Your task to perform on an android device: check android version Image 0: 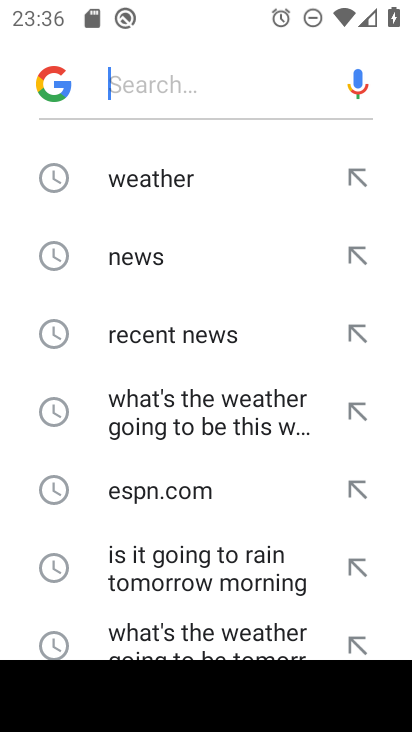
Step 0: press home button
Your task to perform on an android device: check android version Image 1: 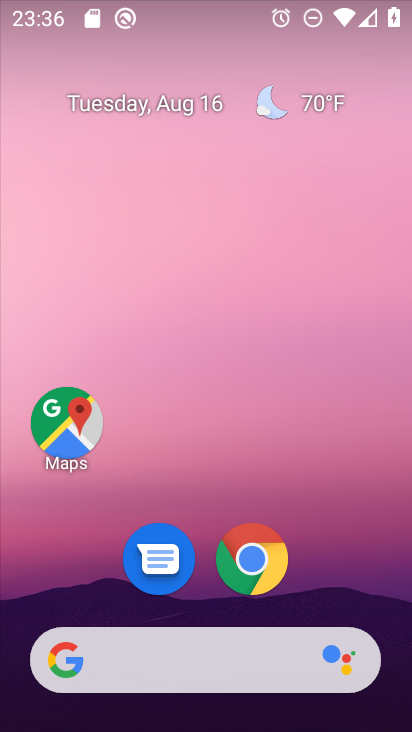
Step 1: drag from (230, 672) to (268, 88)
Your task to perform on an android device: check android version Image 2: 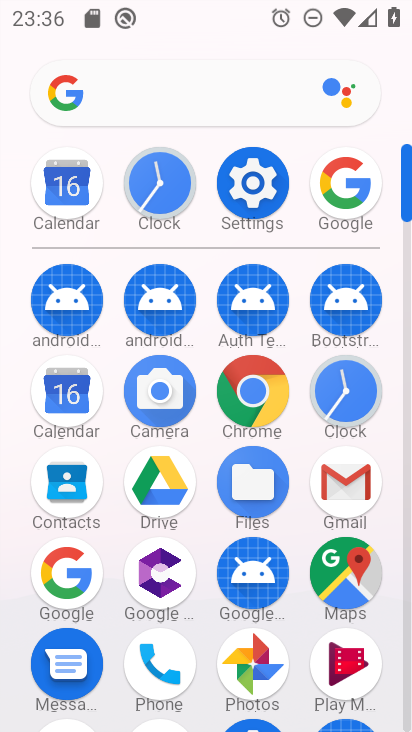
Step 2: click (254, 184)
Your task to perform on an android device: check android version Image 3: 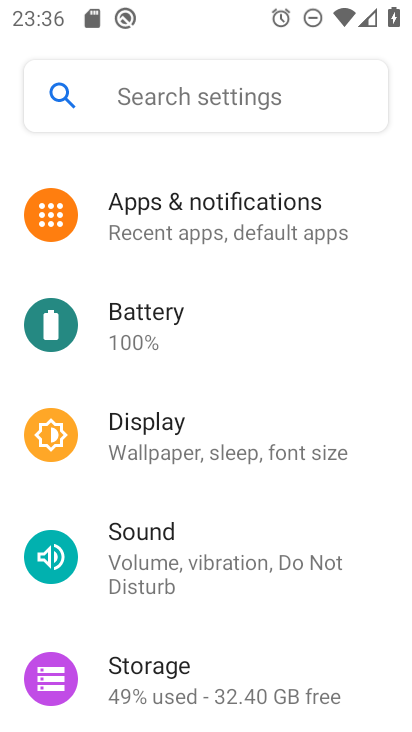
Step 3: drag from (227, 655) to (246, 417)
Your task to perform on an android device: check android version Image 4: 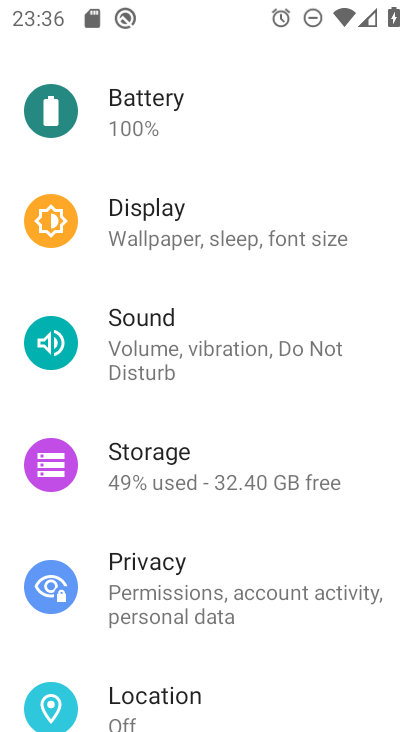
Step 4: drag from (211, 537) to (259, 387)
Your task to perform on an android device: check android version Image 5: 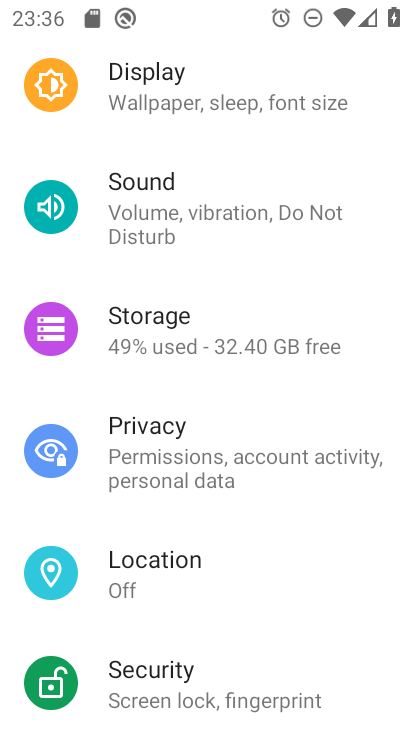
Step 5: drag from (227, 536) to (282, 337)
Your task to perform on an android device: check android version Image 6: 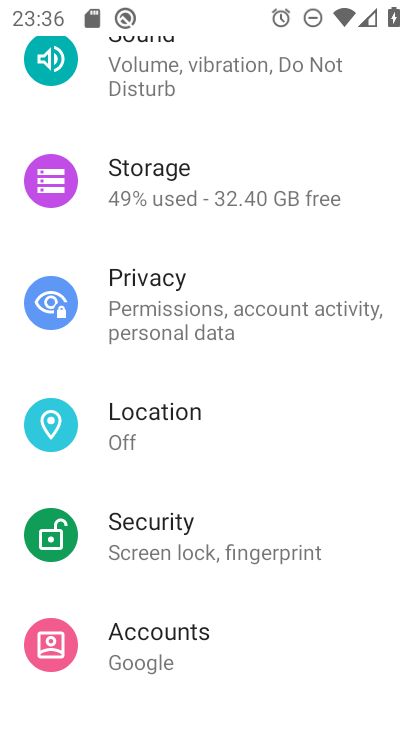
Step 6: drag from (216, 590) to (301, 463)
Your task to perform on an android device: check android version Image 7: 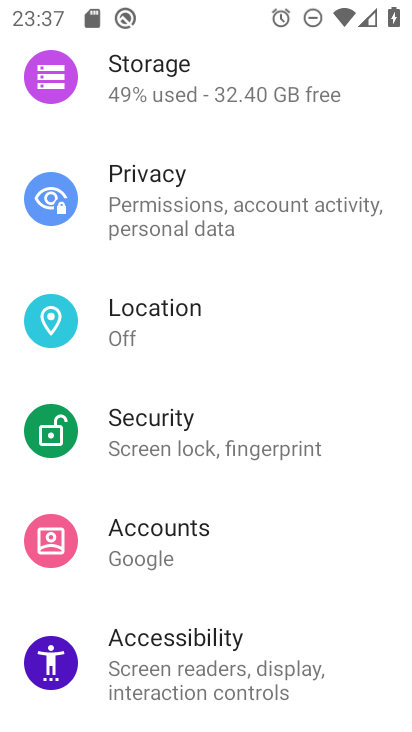
Step 7: drag from (260, 574) to (363, 439)
Your task to perform on an android device: check android version Image 8: 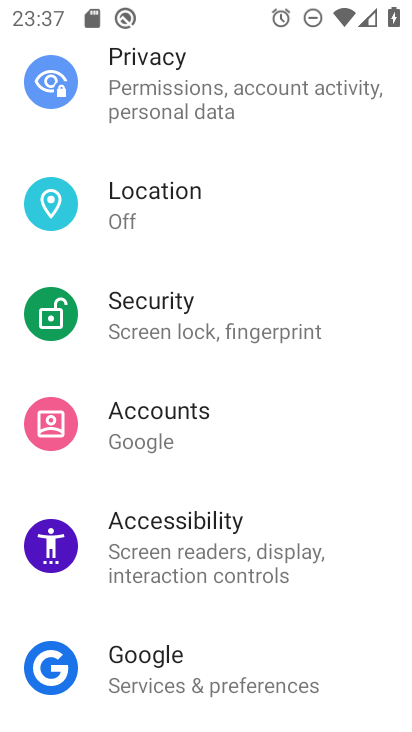
Step 8: drag from (250, 603) to (309, 451)
Your task to perform on an android device: check android version Image 9: 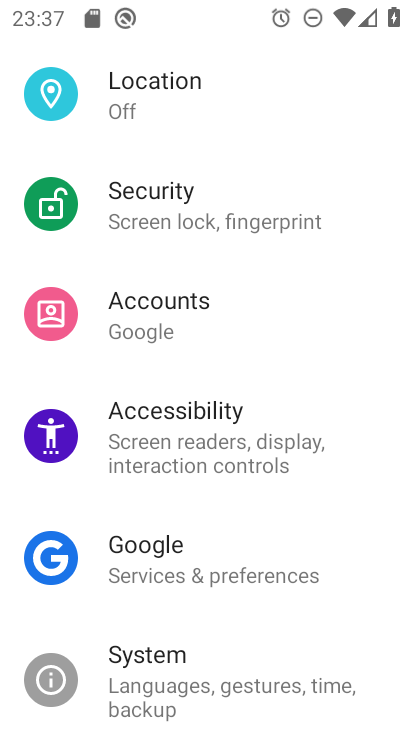
Step 9: drag from (194, 624) to (279, 465)
Your task to perform on an android device: check android version Image 10: 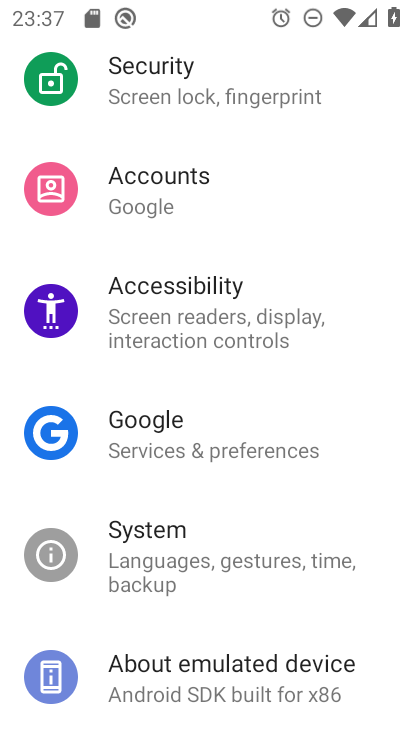
Step 10: click (230, 677)
Your task to perform on an android device: check android version Image 11: 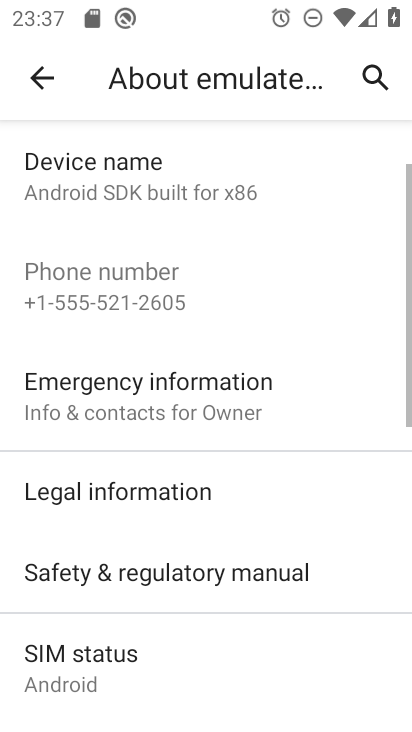
Step 11: drag from (143, 556) to (204, 427)
Your task to perform on an android device: check android version Image 12: 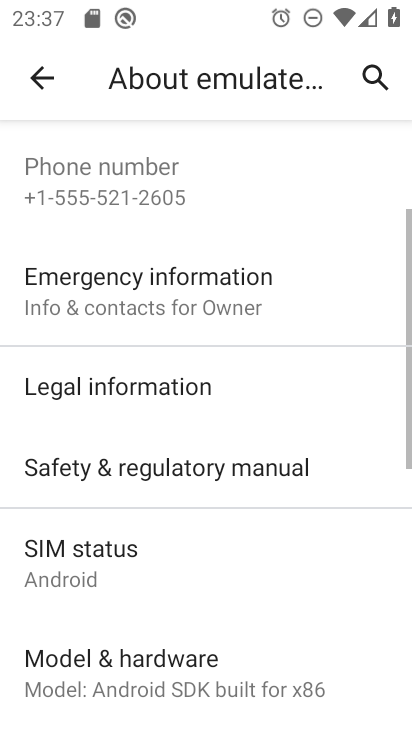
Step 12: drag from (140, 610) to (226, 478)
Your task to perform on an android device: check android version Image 13: 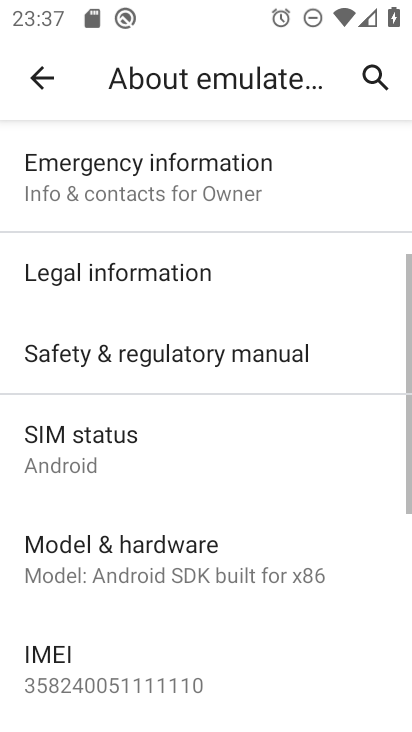
Step 13: drag from (166, 610) to (258, 480)
Your task to perform on an android device: check android version Image 14: 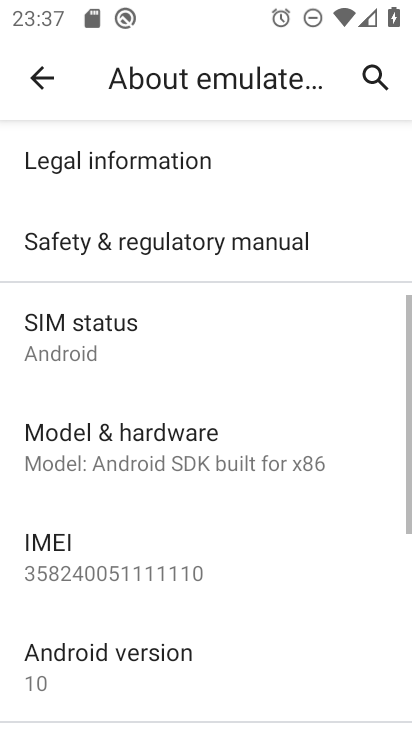
Step 14: click (160, 670)
Your task to perform on an android device: check android version Image 15: 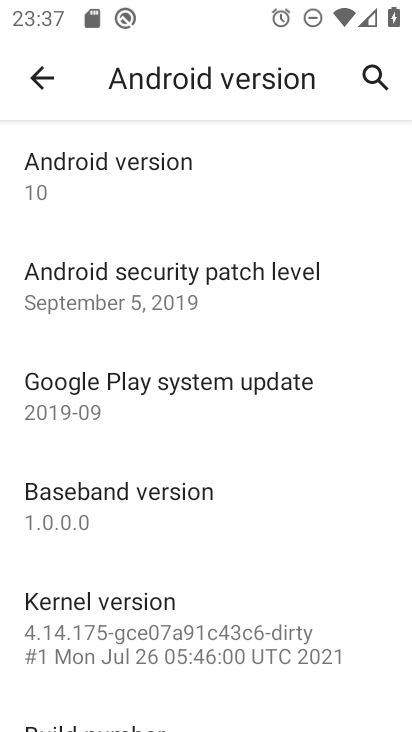
Step 15: task complete